Your task to perform on an android device: show emergency info Image 0: 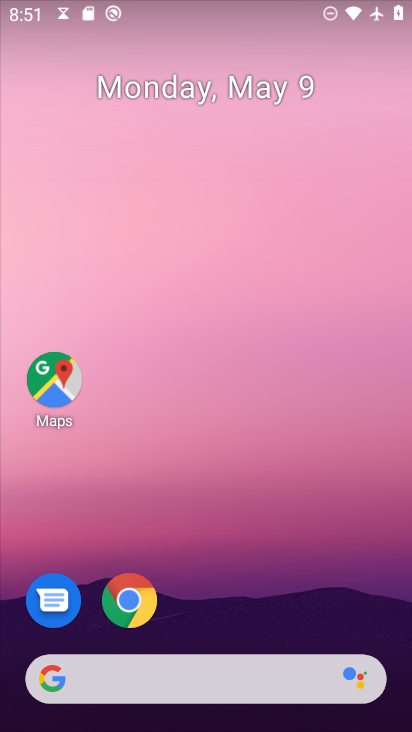
Step 0: drag from (248, 520) to (234, 11)
Your task to perform on an android device: show emergency info Image 1: 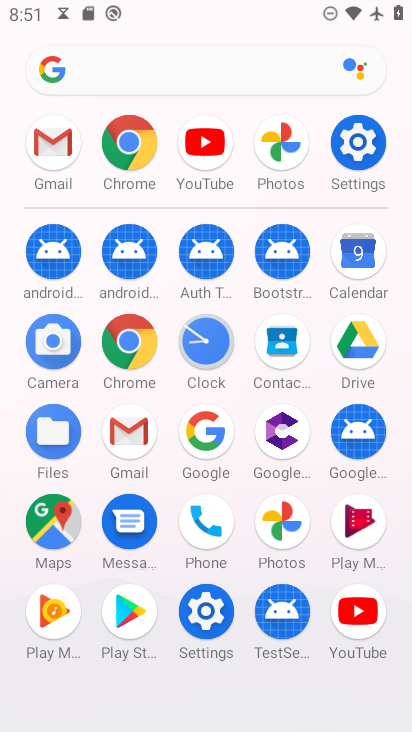
Step 1: click (357, 143)
Your task to perform on an android device: show emergency info Image 2: 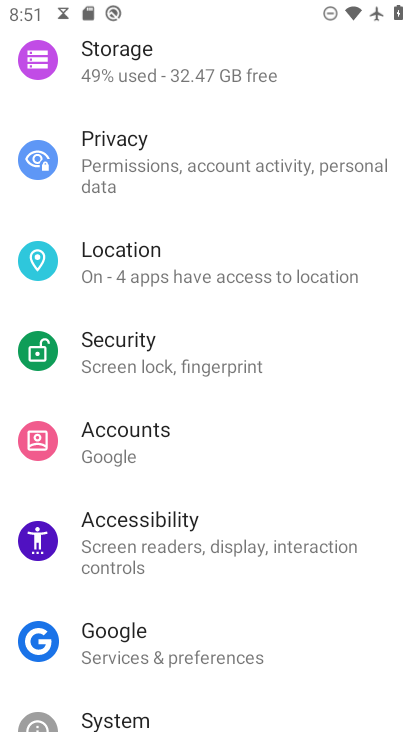
Step 2: drag from (237, 554) to (257, 99)
Your task to perform on an android device: show emergency info Image 3: 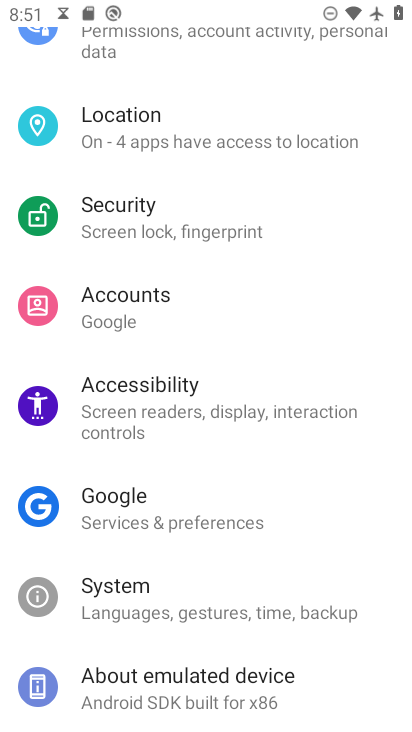
Step 3: drag from (273, 576) to (278, 136)
Your task to perform on an android device: show emergency info Image 4: 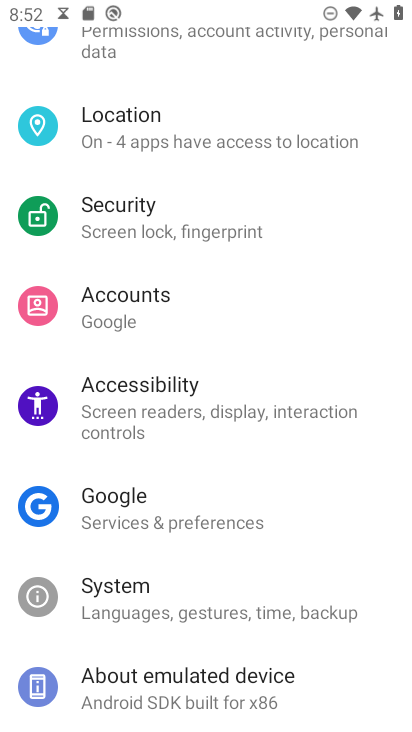
Step 4: click (166, 675)
Your task to perform on an android device: show emergency info Image 5: 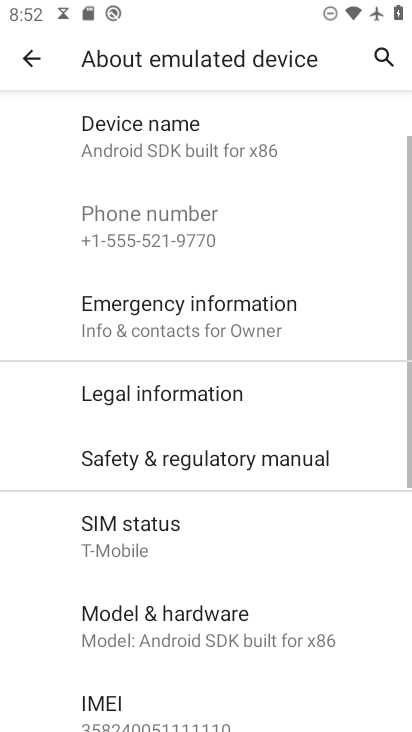
Step 5: click (246, 310)
Your task to perform on an android device: show emergency info Image 6: 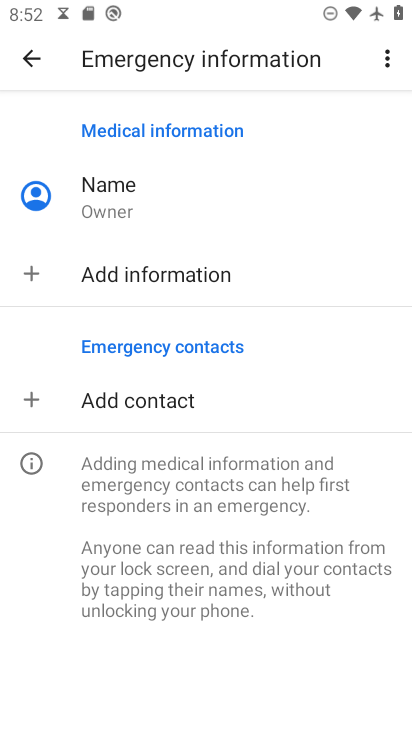
Step 6: task complete